Your task to perform on an android device: What is the news today? Image 0: 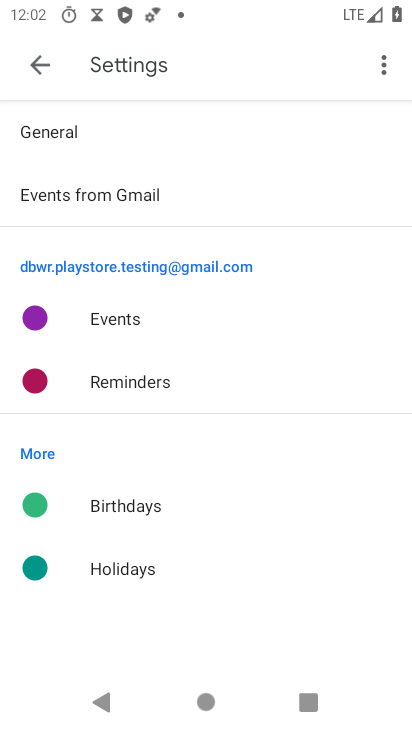
Step 0: press home button
Your task to perform on an android device: What is the news today? Image 1: 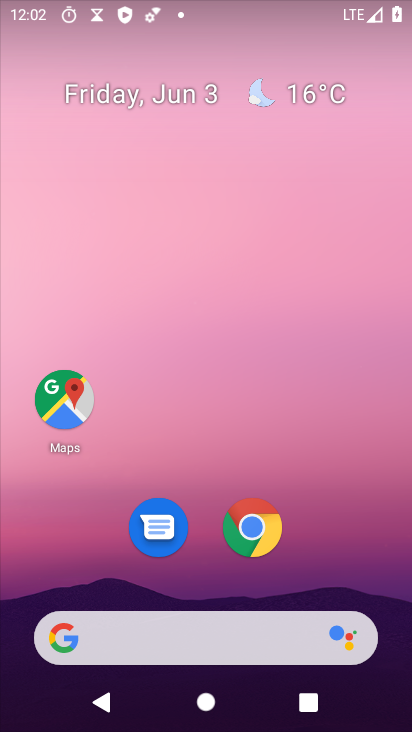
Step 1: task complete